Your task to perform on an android device: Open eBay Image 0: 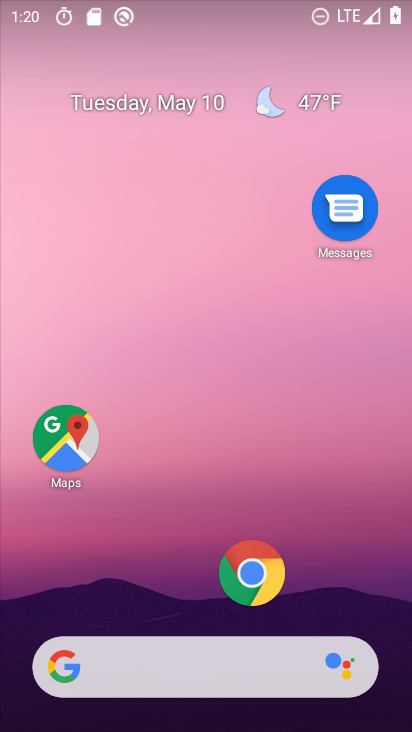
Step 0: drag from (204, 604) to (196, 188)
Your task to perform on an android device: Open eBay Image 1: 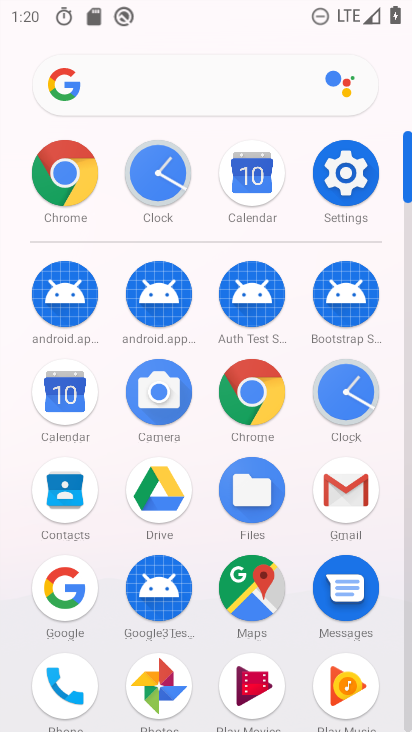
Step 1: click (219, 72)
Your task to perform on an android device: Open eBay Image 2: 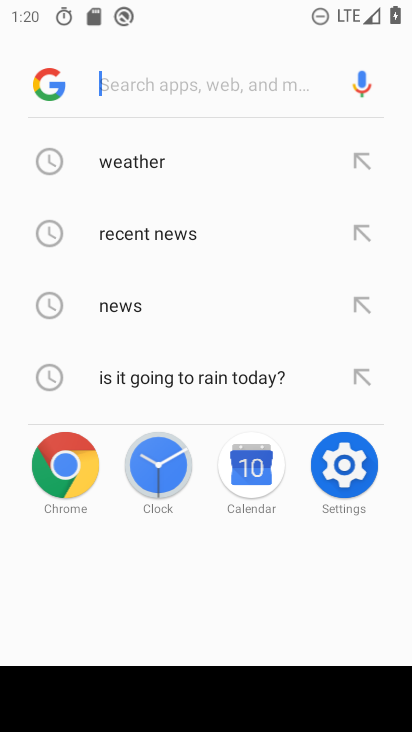
Step 2: type "ebay"
Your task to perform on an android device: Open eBay Image 3: 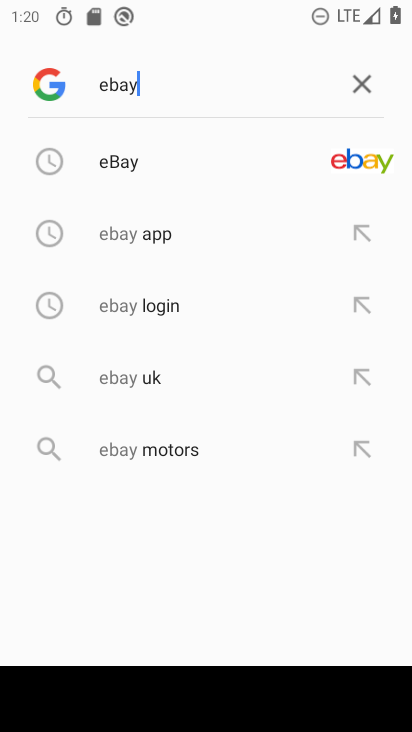
Step 3: click (209, 157)
Your task to perform on an android device: Open eBay Image 4: 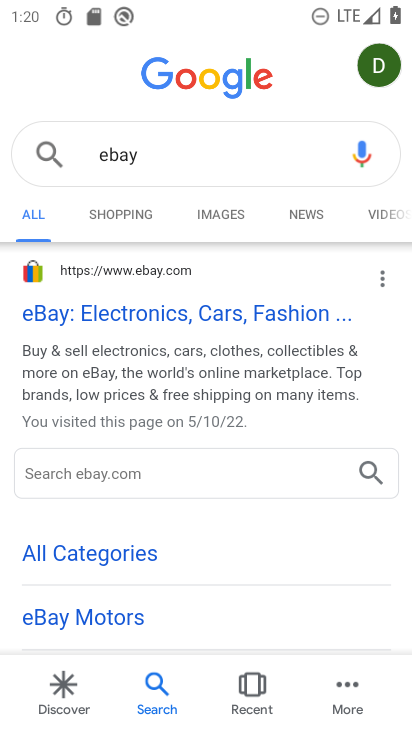
Step 4: click (128, 315)
Your task to perform on an android device: Open eBay Image 5: 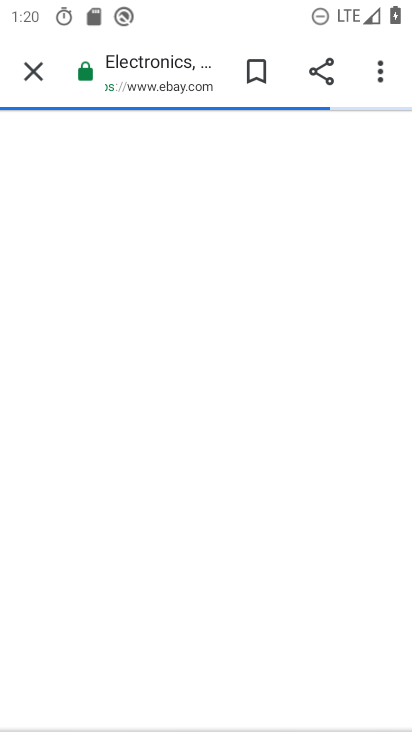
Step 5: task complete